Your task to perform on an android device: Go to location settings Image 0: 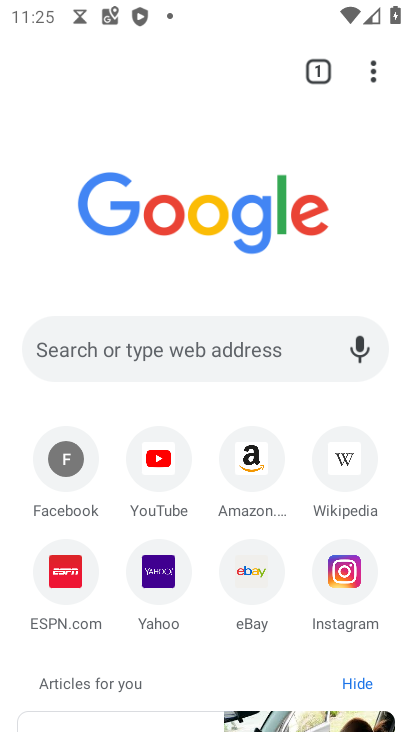
Step 0: press home button
Your task to perform on an android device: Go to location settings Image 1: 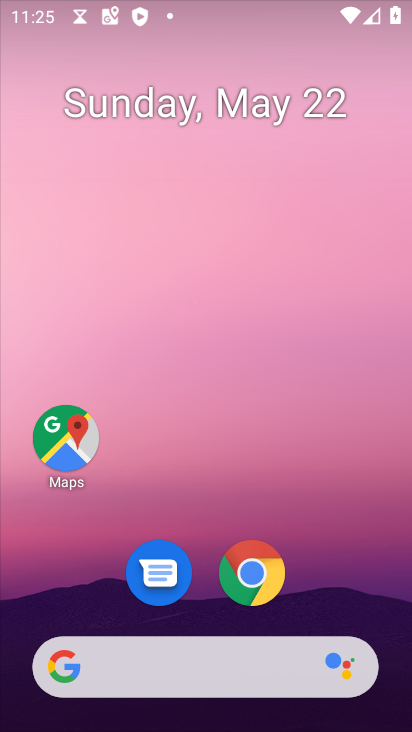
Step 1: drag from (184, 673) to (261, 3)
Your task to perform on an android device: Go to location settings Image 2: 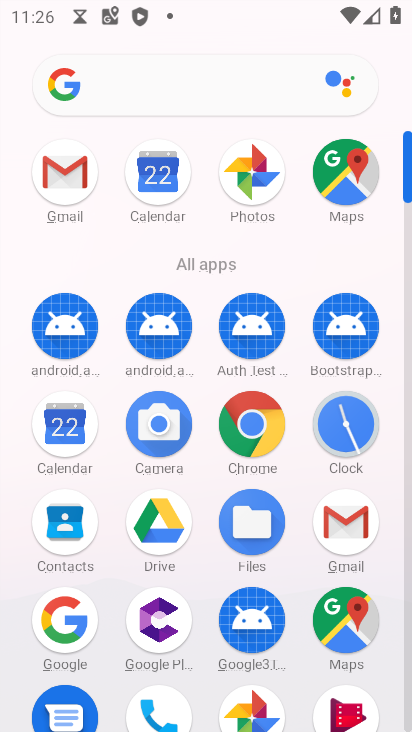
Step 2: drag from (196, 630) to (251, 380)
Your task to perform on an android device: Go to location settings Image 3: 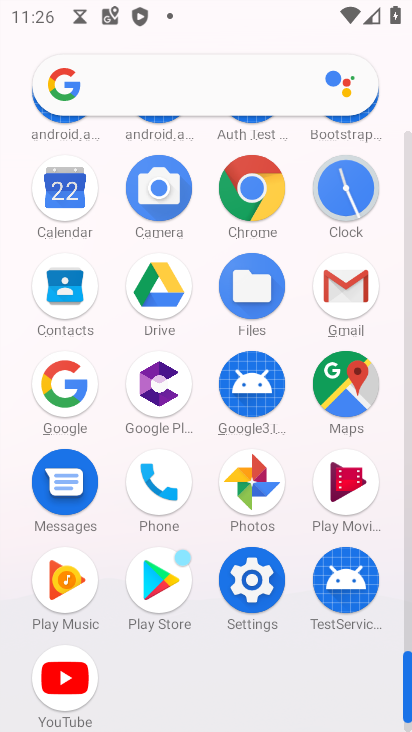
Step 3: click (247, 583)
Your task to perform on an android device: Go to location settings Image 4: 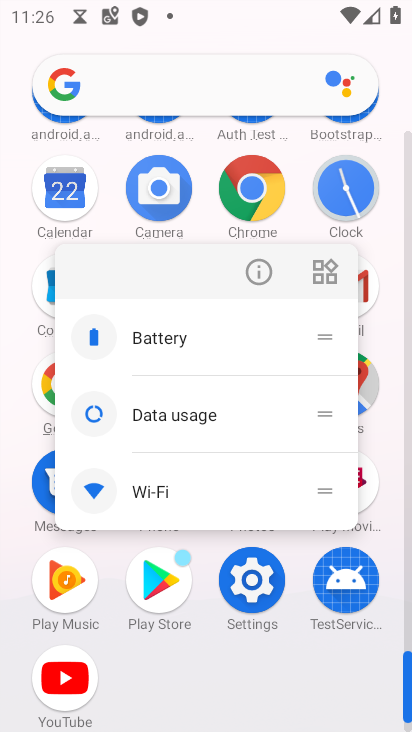
Step 4: click (252, 591)
Your task to perform on an android device: Go to location settings Image 5: 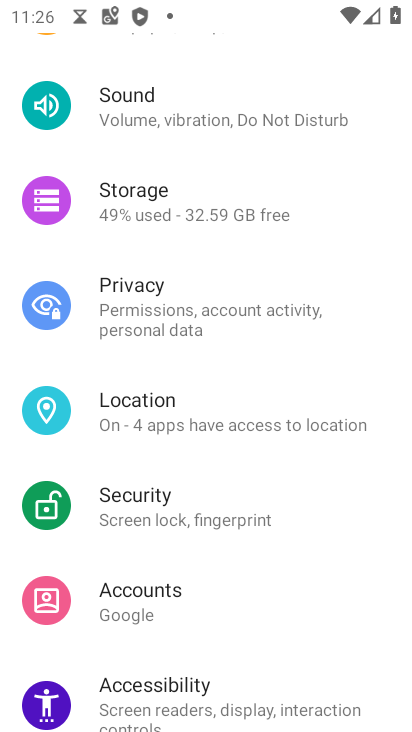
Step 5: click (153, 416)
Your task to perform on an android device: Go to location settings Image 6: 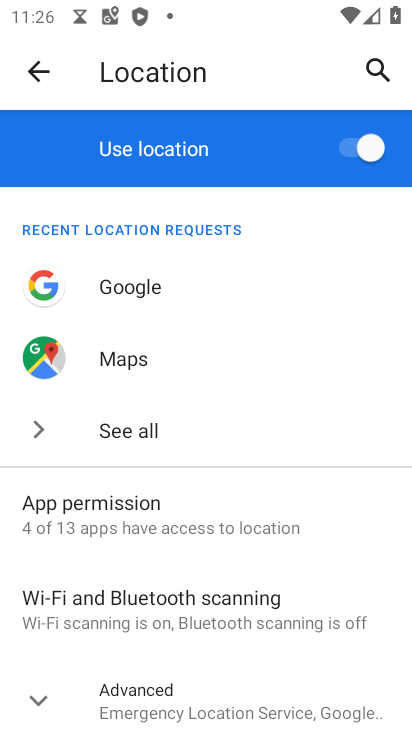
Step 6: task complete